Your task to perform on an android device: Go to network settings Image 0: 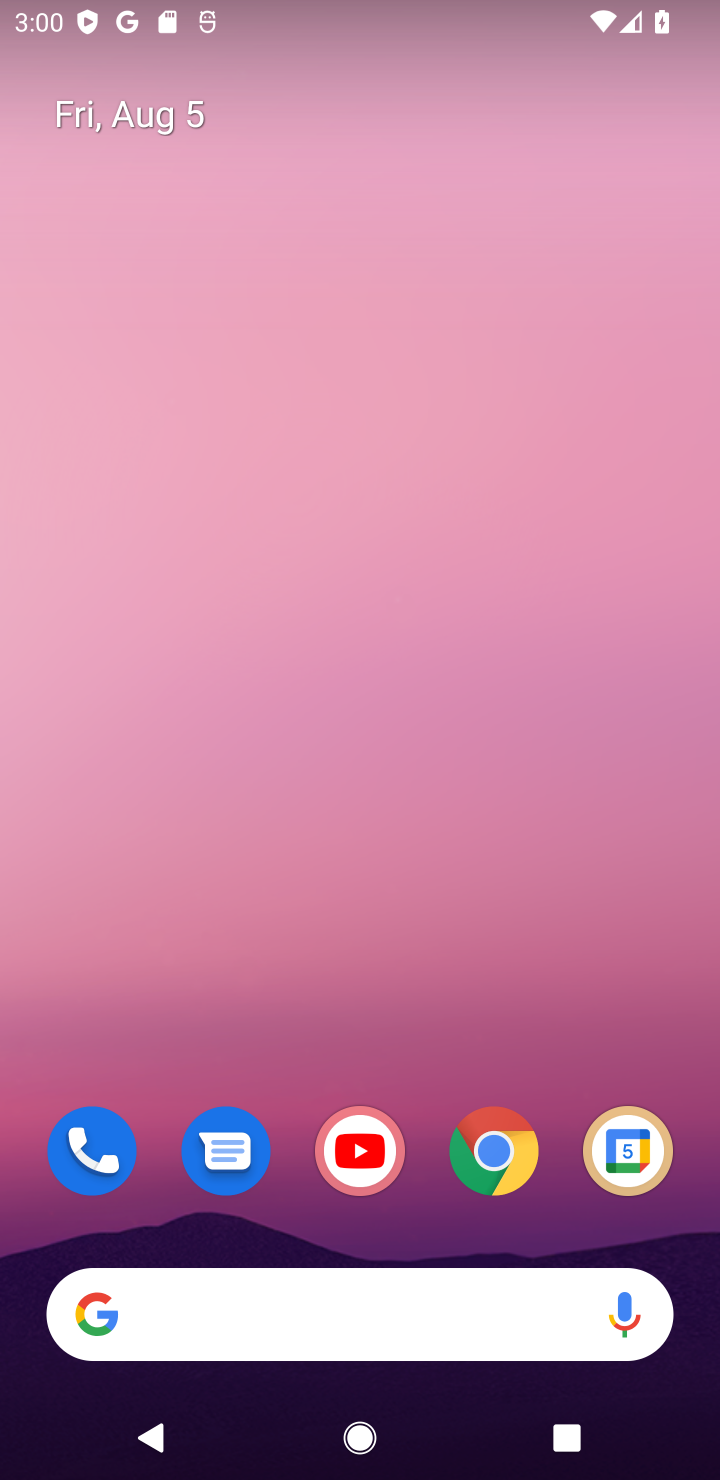
Step 0: drag from (434, 945) to (371, 211)
Your task to perform on an android device: Go to network settings Image 1: 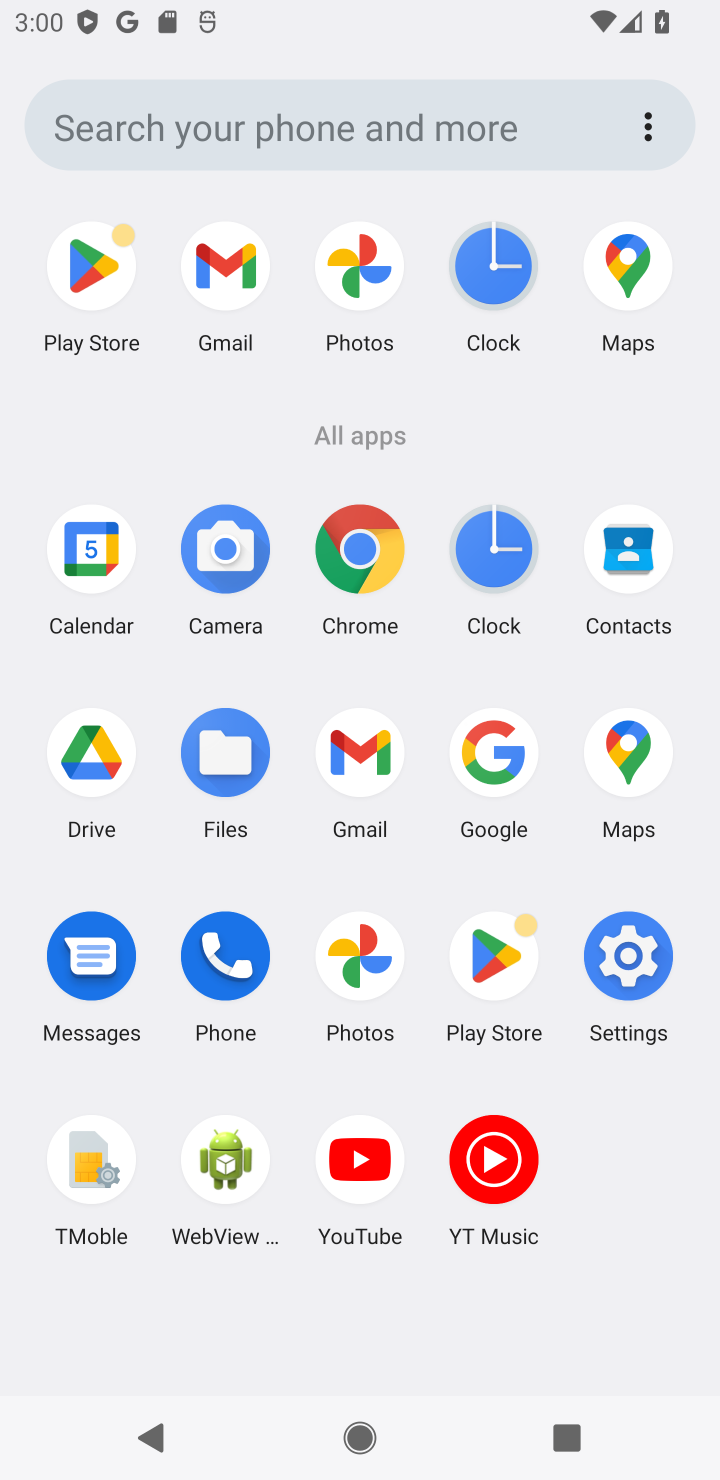
Step 1: click (605, 957)
Your task to perform on an android device: Go to network settings Image 2: 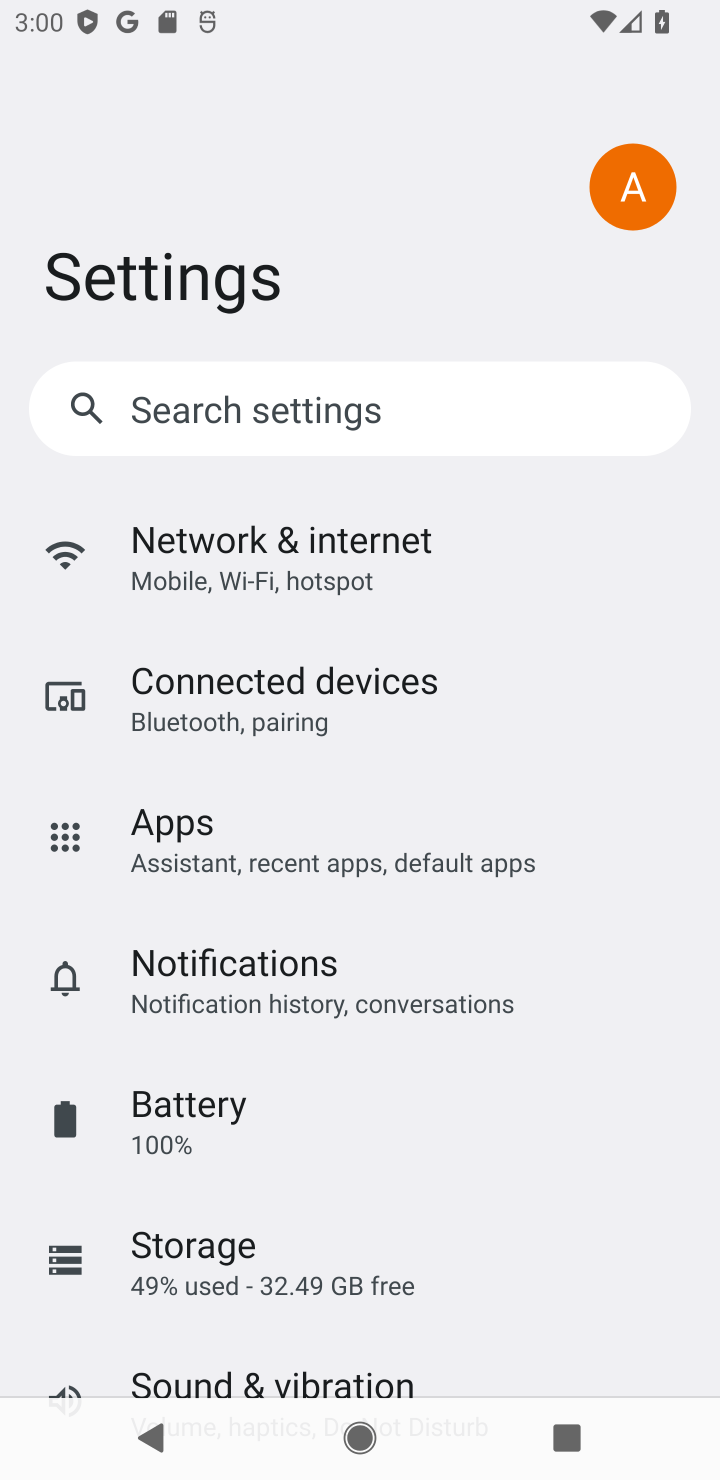
Step 2: click (376, 588)
Your task to perform on an android device: Go to network settings Image 3: 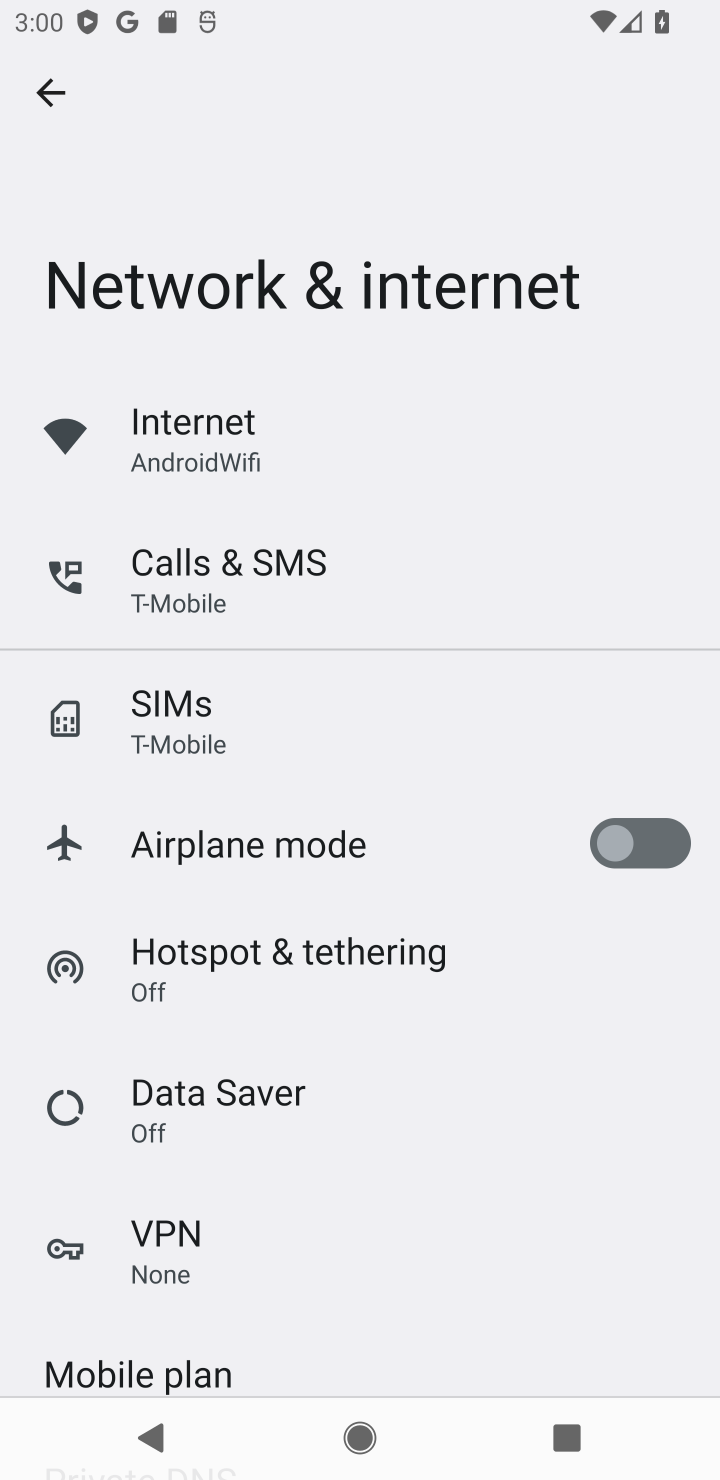
Step 3: task complete